Your task to perform on an android device: Open ESPN.com Image 0: 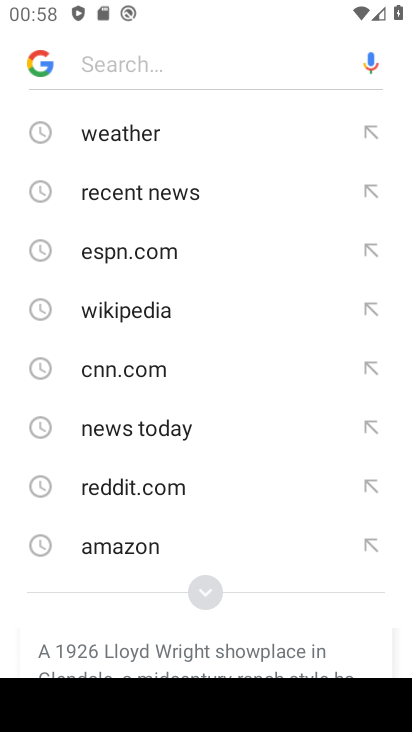
Step 0: press back button
Your task to perform on an android device: Open ESPN.com Image 1: 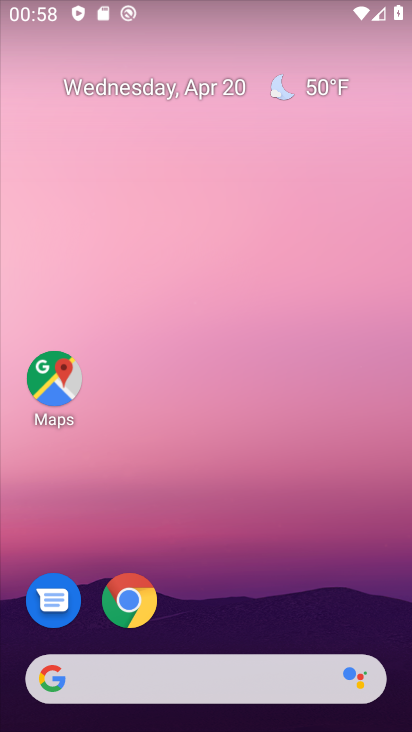
Step 1: click (142, 603)
Your task to perform on an android device: Open ESPN.com Image 2: 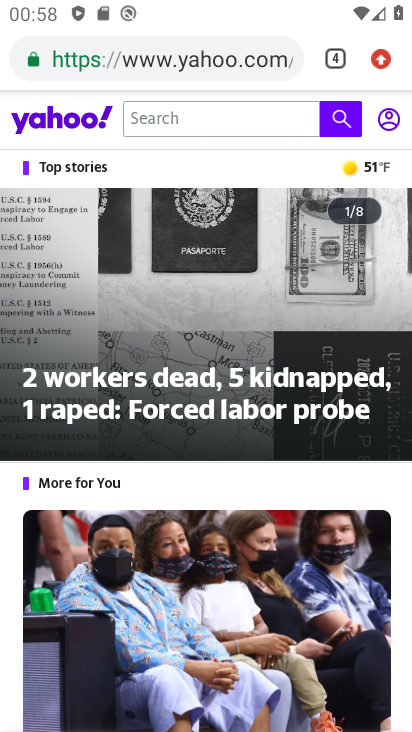
Step 2: click (340, 62)
Your task to perform on an android device: Open ESPN.com Image 3: 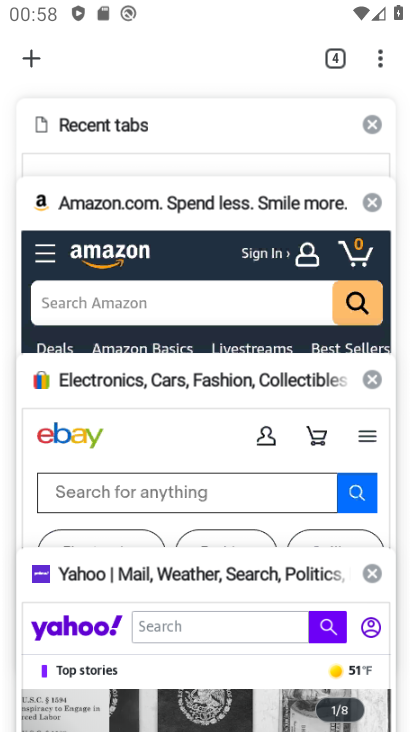
Step 3: click (29, 62)
Your task to perform on an android device: Open ESPN.com Image 4: 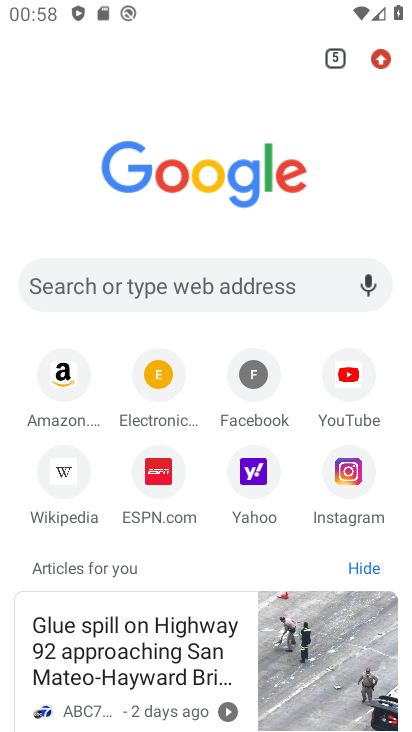
Step 4: click (157, 460)
Your task to perform on an android device: Open ESPN.com Image 5: 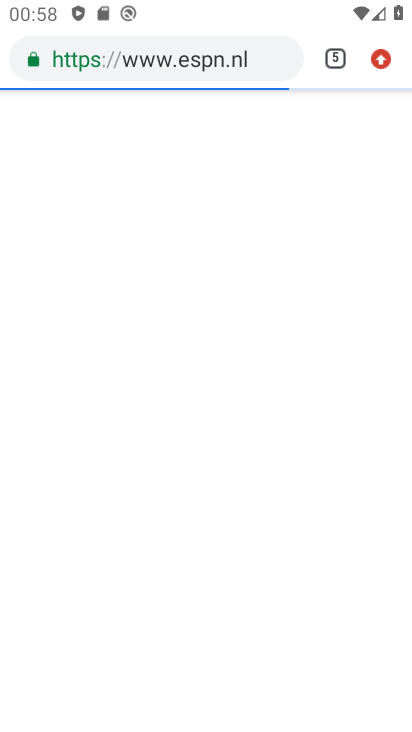
Step 5: task complete